Your task to perform on an android device: Do I have any events this weekend? Image 0: 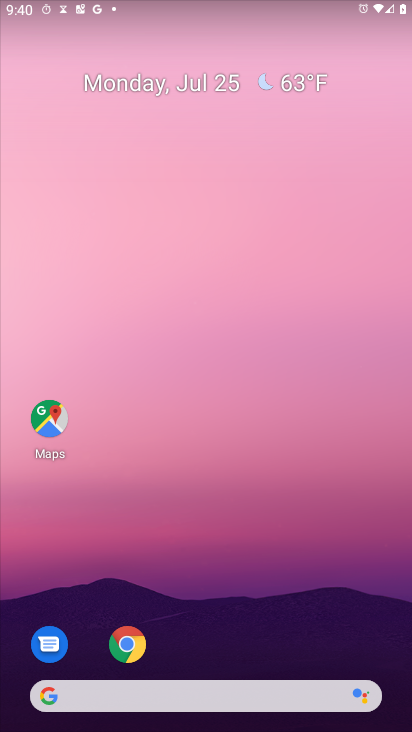
Step 0: drag from (301, 644) to (358, 80)
Your task to perform on an android device: Do I have any events this weekend? Image 1: 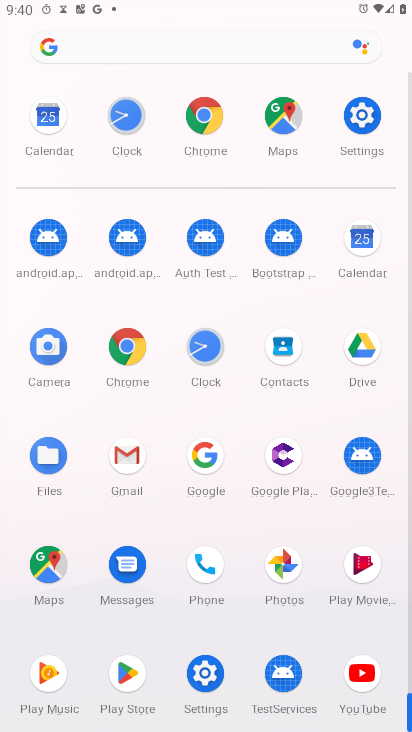
Step 1: click (360, 237)
Your task to perform on an android device: Do I have any events this weekend? Image 2: 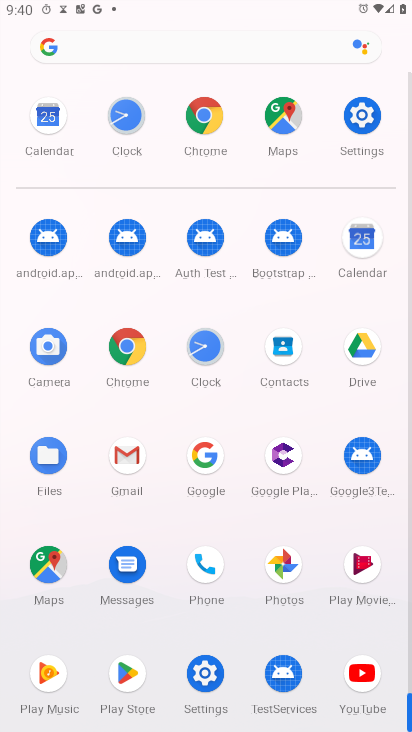
Step 2: click (367, 241)
Your task to perform on an android device: Do I have any events this weekend? Image 3: 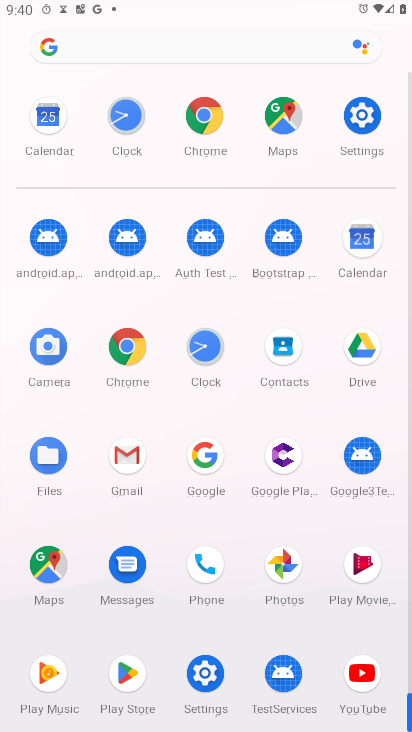
Step 3: click (368, 242)
Your task to perform on an android device: Do I have any events this weekend? Image 4: 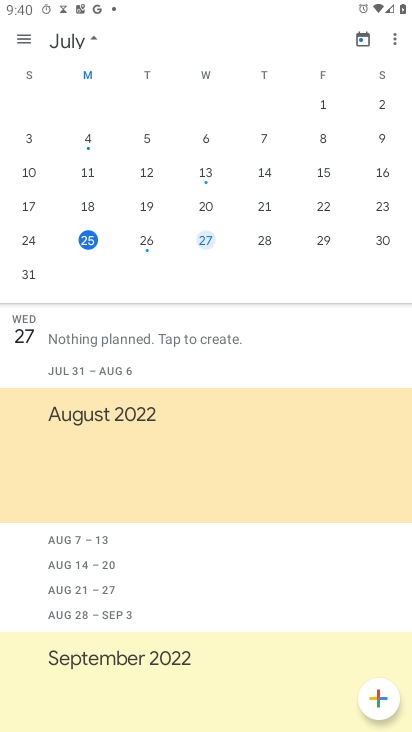
Step 4: click (319, 236)
Your task to perform on an android device: Do I have any events this weekend? Image 5: 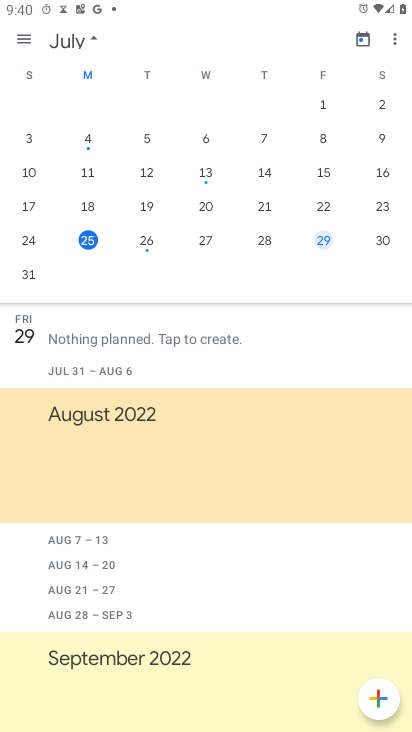
Step 5: click (327, 239)
Your task to perform on an android device: Do I have any events this weekend? Image 6: 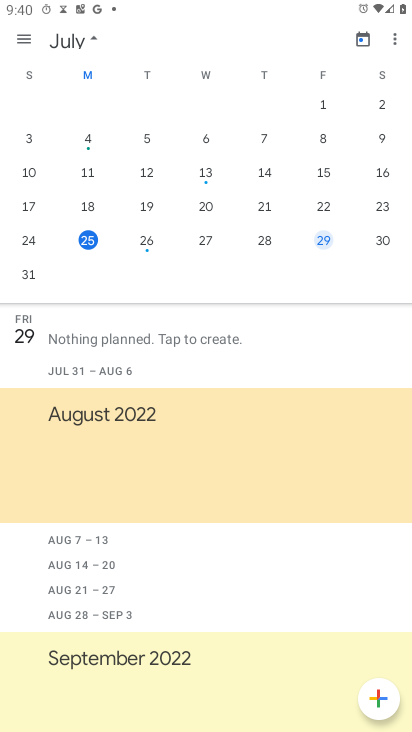
Step 6: click (337, 243)
Your task to perform on an android device: Do I have any events this weekend? Image 7: 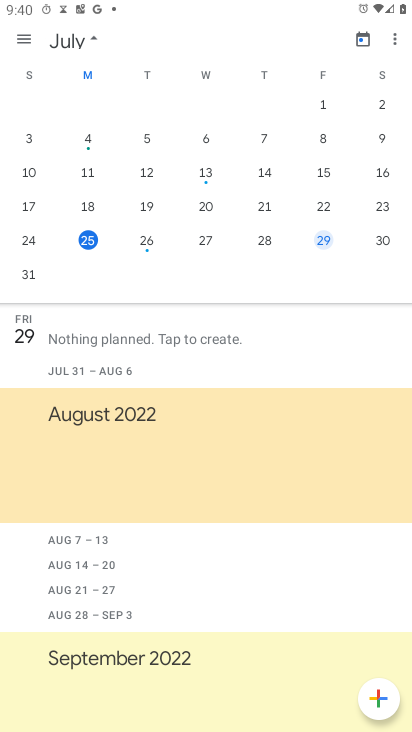
Step 7: click (337, 243)
Your task to perform on an android device: Do I have any events this weekend? Image 8: 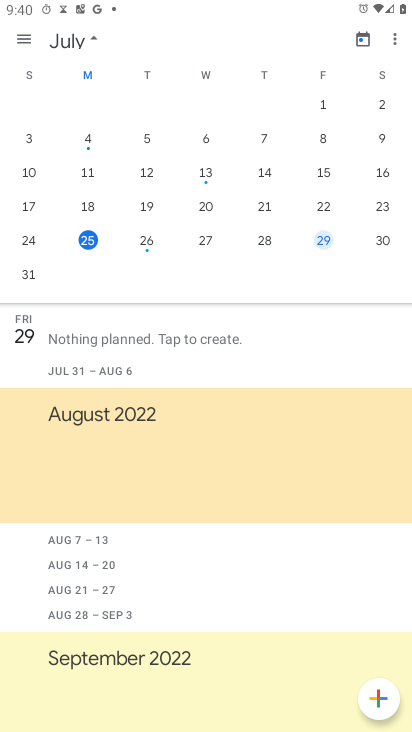
Step 8: click (337, 243)
Your task to perform on an android device: Do I have any events this weekend? Image 9: 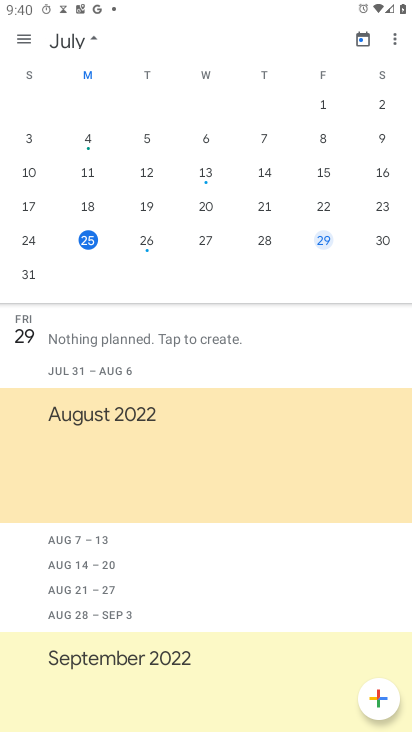
Step 9: task complete